Your task to perform on an android device: Show me productivity apps on the Play Store Image 0: 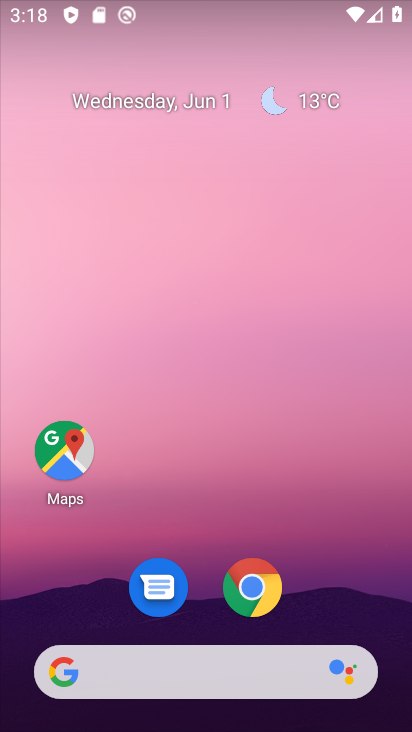
Step 0: drag from (309, 598) to (182, 24)
Your task to perform on an android device: Show me productivity apps on the Play Store Image 1: 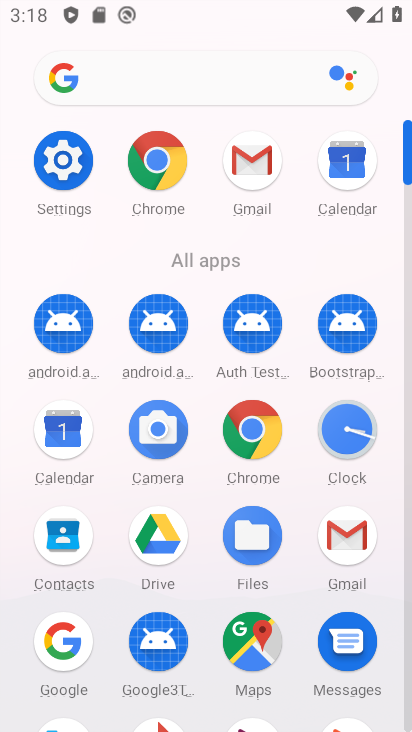
Step 1: drag from (2, 536) to (17, 182)
Your task to perform on an android device: Show me productivity apps on the Play Store Image 2: 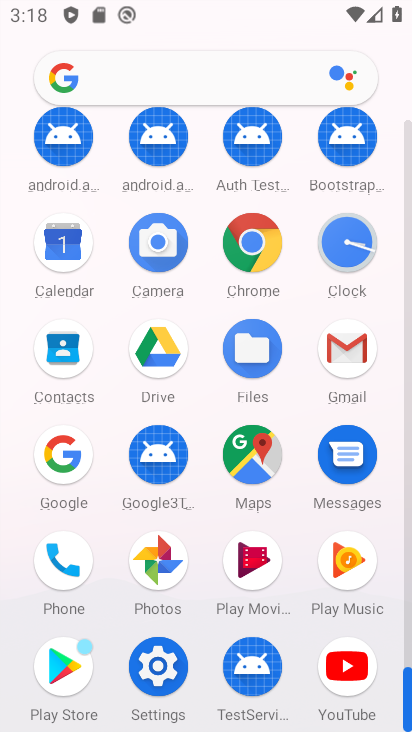
Step 2: drag from (5, 547) to (33, 218)
Your task to perform on an android device: Show me productivity apps on the Play Store Image 3: 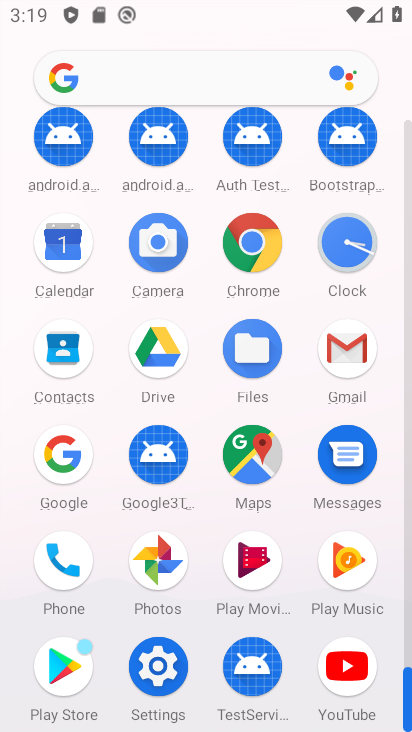
Step 3: click (58, 665)
Your task to perform on an android device: Show me productivity apps on the Play Store Image 4: 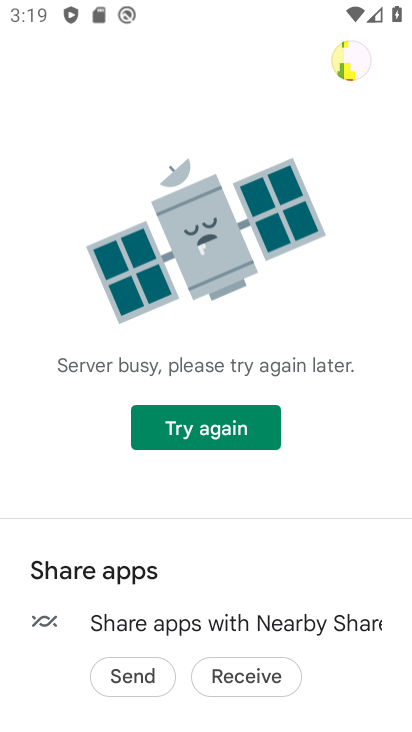
Step 4: task complete